Your task to perform on an android device: change keyboard looks Image 0: 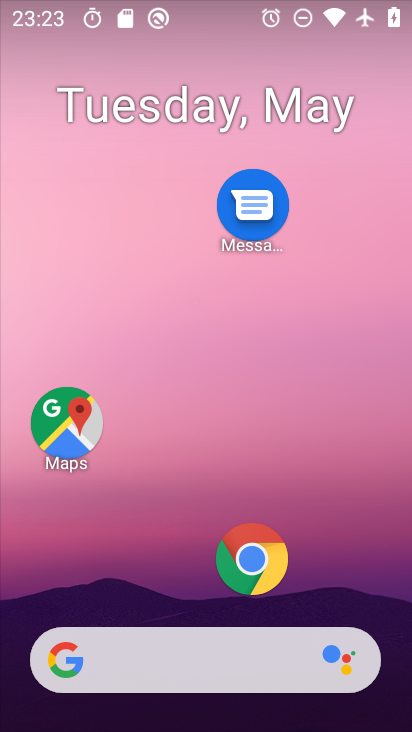
Step 0: drag from (181, 581) to (198, 274)
Your task to perform on an android device: change keyboard looks Image 1: 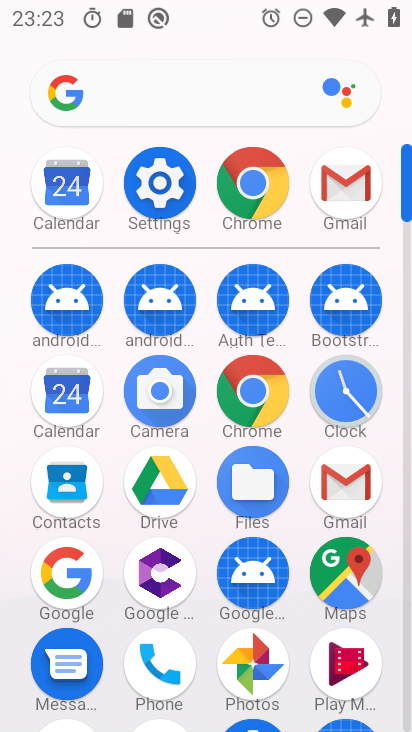
Step 1: click (169, 156)
Your task to perform on an android device: change keyboard looks Image 2: 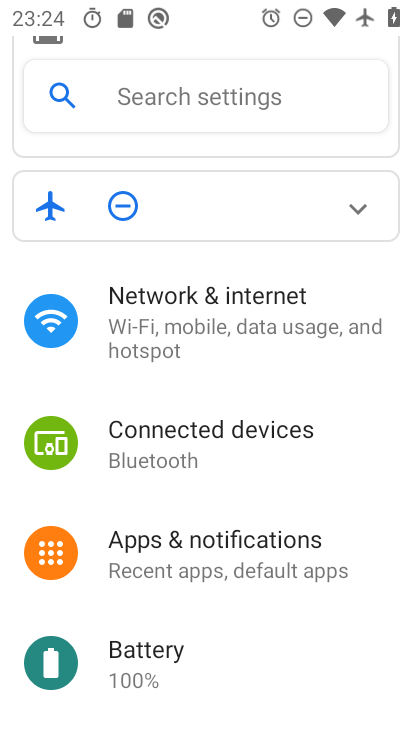
Step 2: drag from (206, 602) to (239, 230)
Your task to perform on an android device: change keyboard looks Image 3: 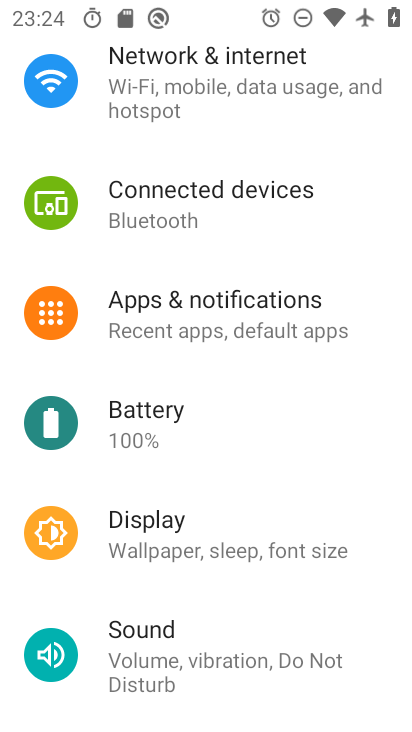
Step 3: drag from (174, 649) to (211, 212)
Your task to perform on an android device: change keyboard looks Image 4: 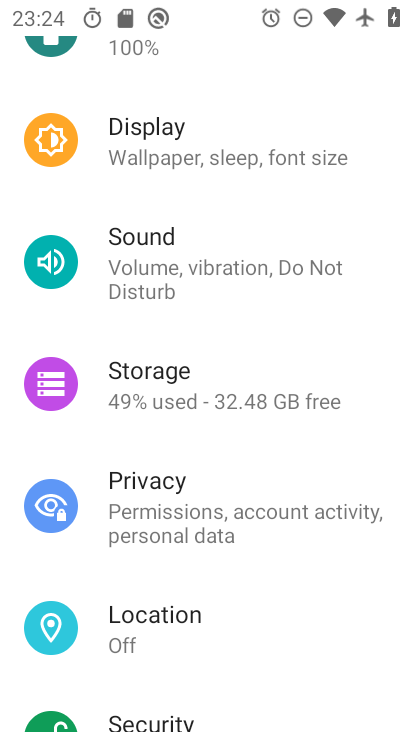
Step 4: drag from (302, 543) to (355, 142)
Your task to perform on an android device: change keyboard looks Image 5: 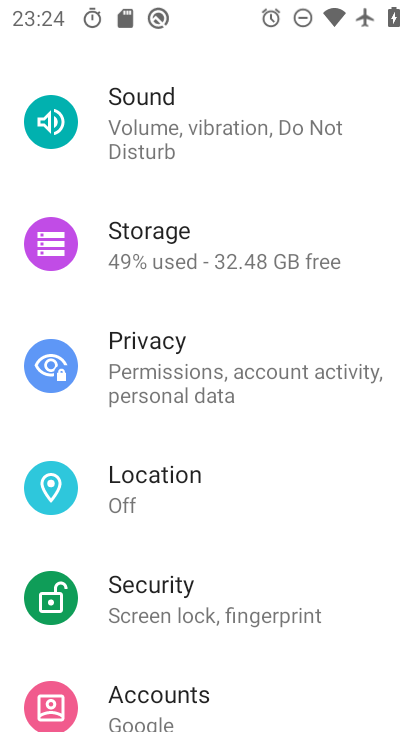
Step 5: drag from (344, 628) to (277, 197)
Your task to perform on an android device: change keyboard looks Image 6: 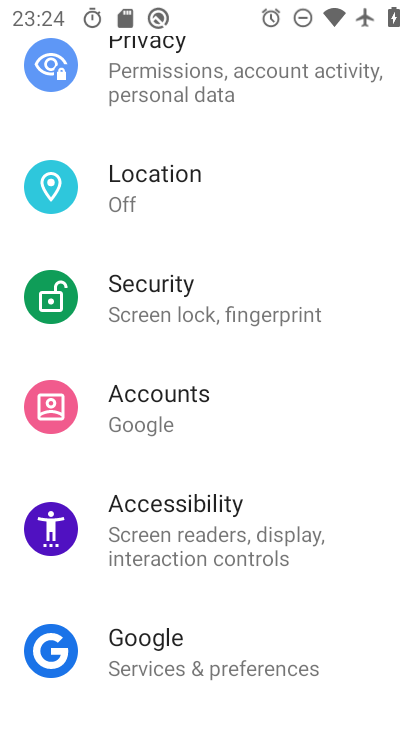
Step 6: drag from (271, 649) to (242, 205)
Your task to perform on an android device: change keyboard looks Image 7: 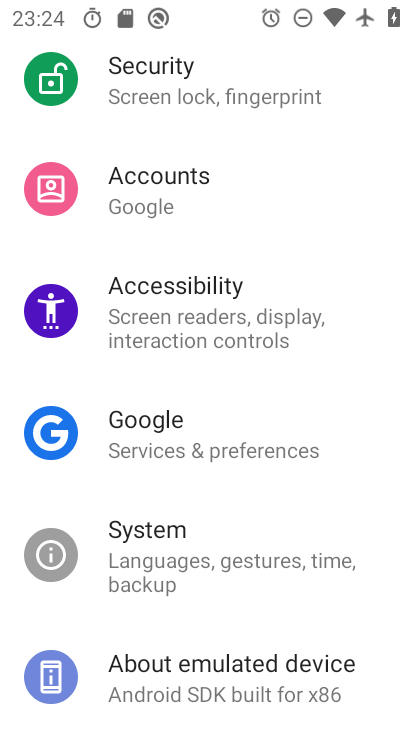
Step 7: drag from (242, 629) to (242, 186)
Your task to perform on an android device: change keyboard looks Image 8: 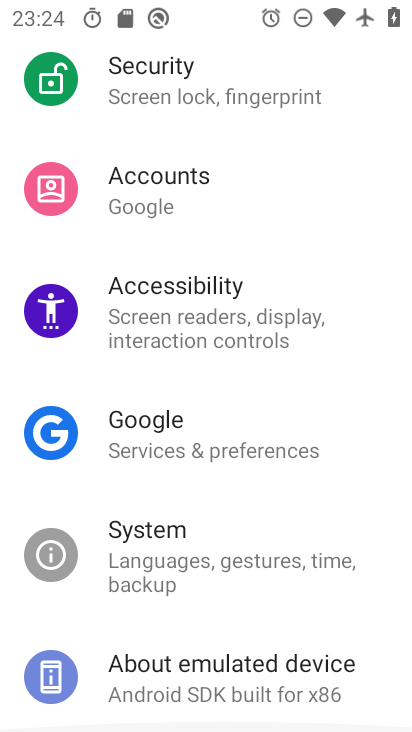
Step 8: drag from (243, 564) to (247, 229)
Your task to perform on an android device: change keyboard looks Image 9: 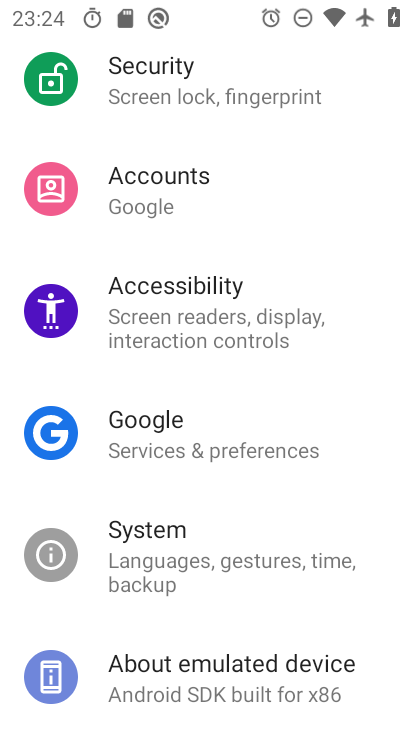
Step 9: drag from (234, 619) to (239, 256)
Your task to perform on an android device: change keyboard looks Image 10: 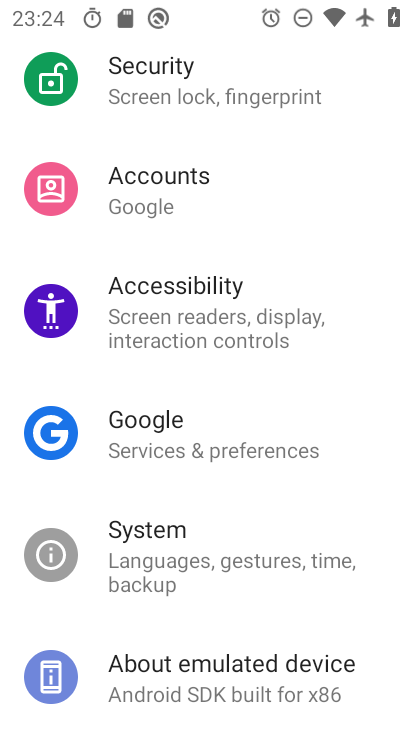
Step 10: click (177, 537)
Your task to perform on an android device: change keyboard looks Image 11: 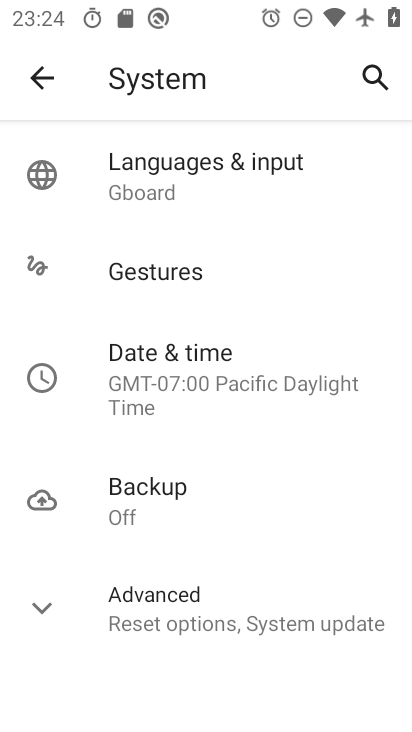
Step 11: click (171, 195)
Your task to perform on an android device: change keyboard looks Image 12: 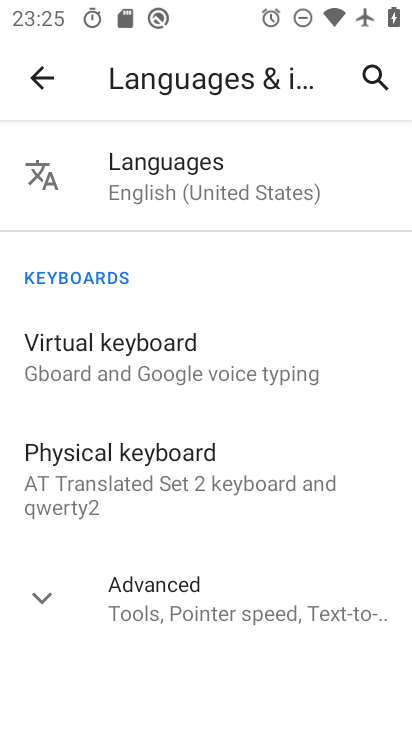
Step 12: drag from (235, 583) to (241, 300)
Your task to perform on an android device: change keyboard looks Image 13: 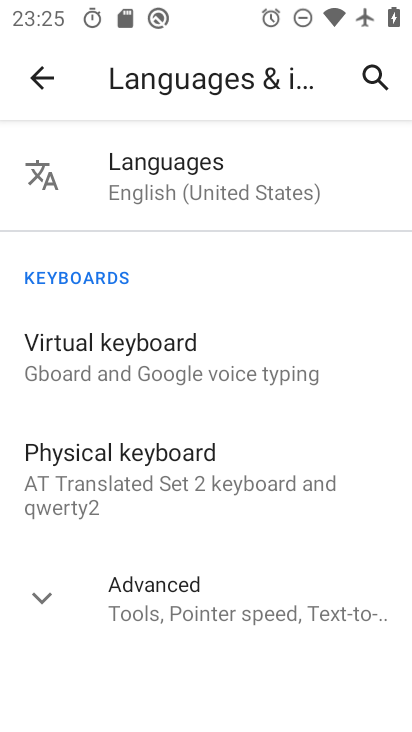
Step 13: click (177, 348)
Your task to perform on an android device: change keyboard looks Image 14: 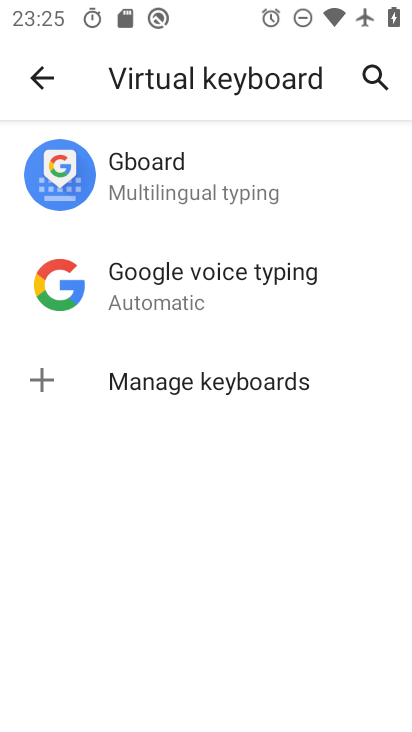
Step 14: click (186, 205)
Your task to perform on an android device: change keyboard looks Image 15: 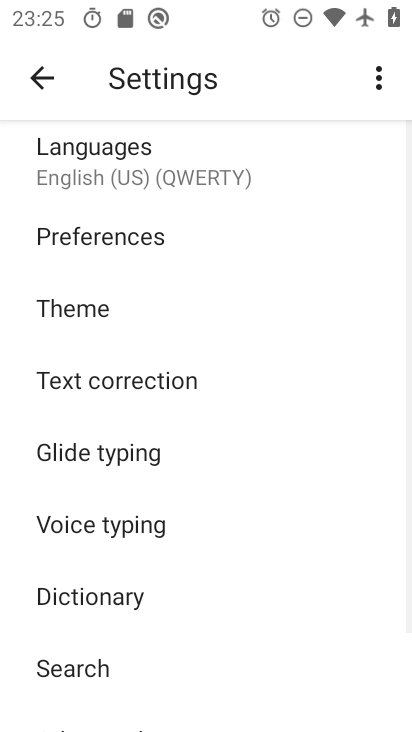
Step 15: drag from (151, 252) to (120, 433)
Your task to perform on an android device: change keyboard looks Image 16: 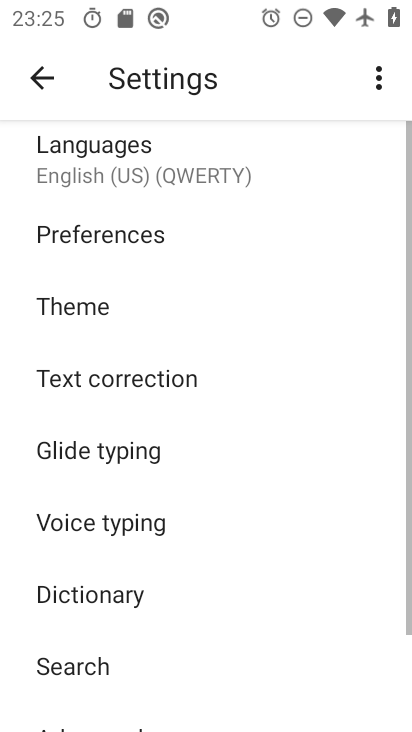
Step 16: click (95, 314)
Your task to perform on an android device: change keyboard looks Image 17: 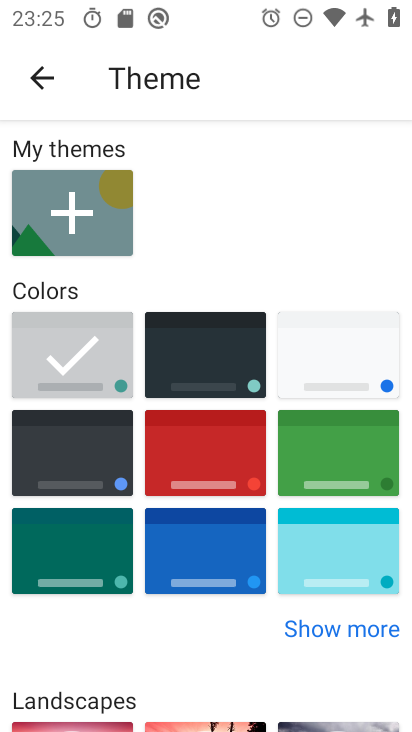
Step 17: click (296, 376)
Your task to perform on an android device: change keyboard looks Image 18: 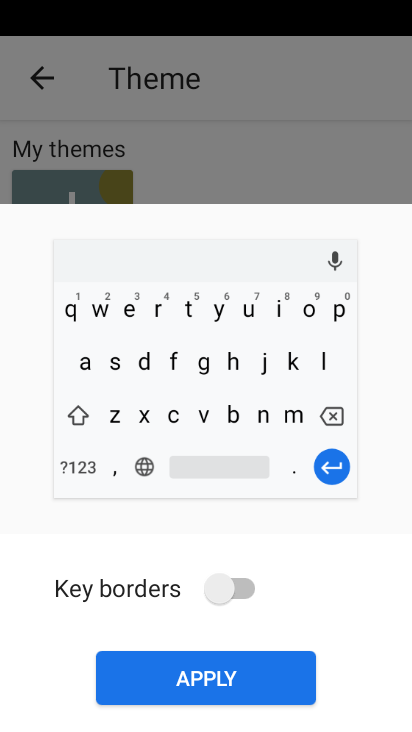
Step 18: click (271, 664)
Your task to perform on an android device: change keyboard looks Image 19: 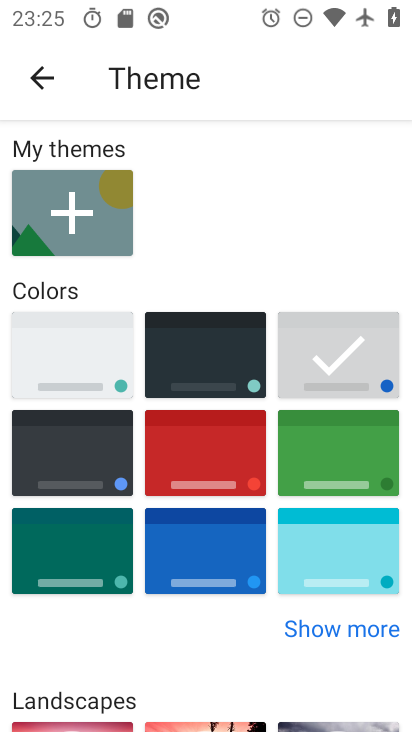
Step 19: task complete